Your task to perform on an android device: Add "usb-c to usb-a" to the cart on bestbuy.com, then select checkout. Image 0: 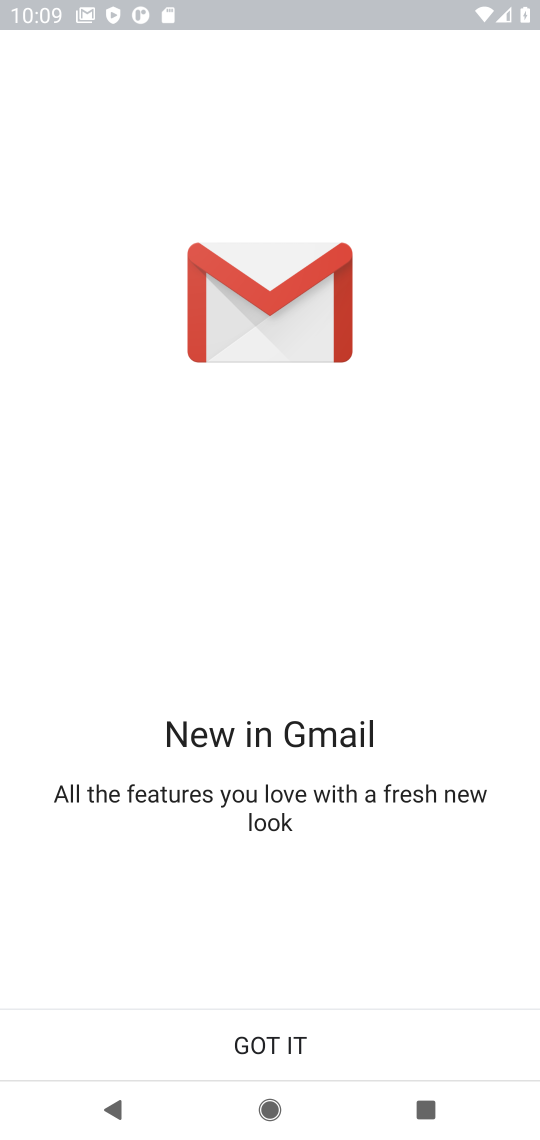
Step 0: press home button
Your task to perform on an android device: Add "usb-c to usb-a" to the cart on bestbuy.com, then select checkout. Image 1: 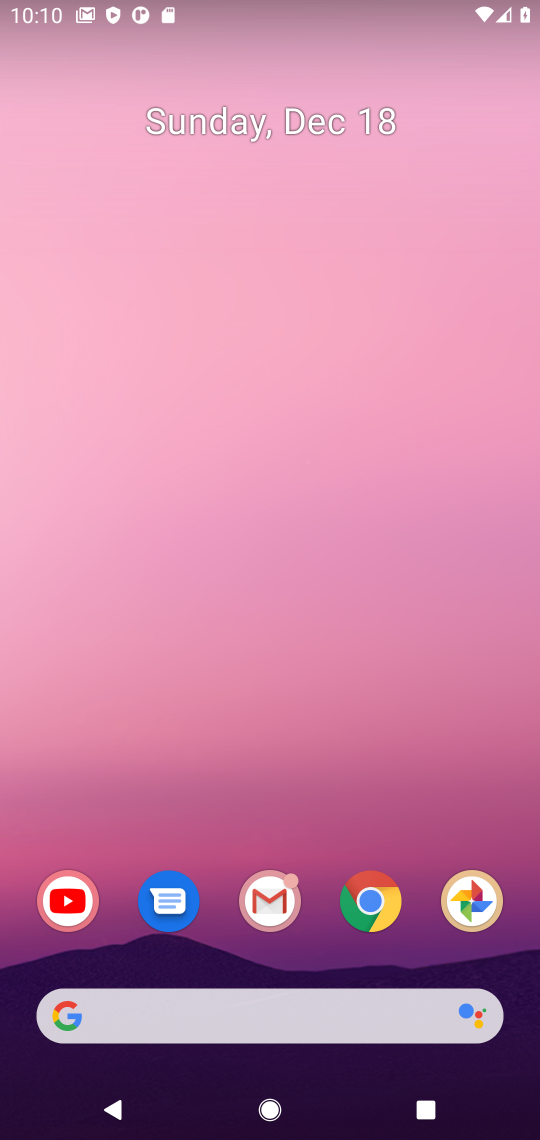
Step 1: click (359, 910)
Your task to perform on an android device: Add "usb-c to usb-a" to the cart on bestbuy.com, then select checkout. Image 2: 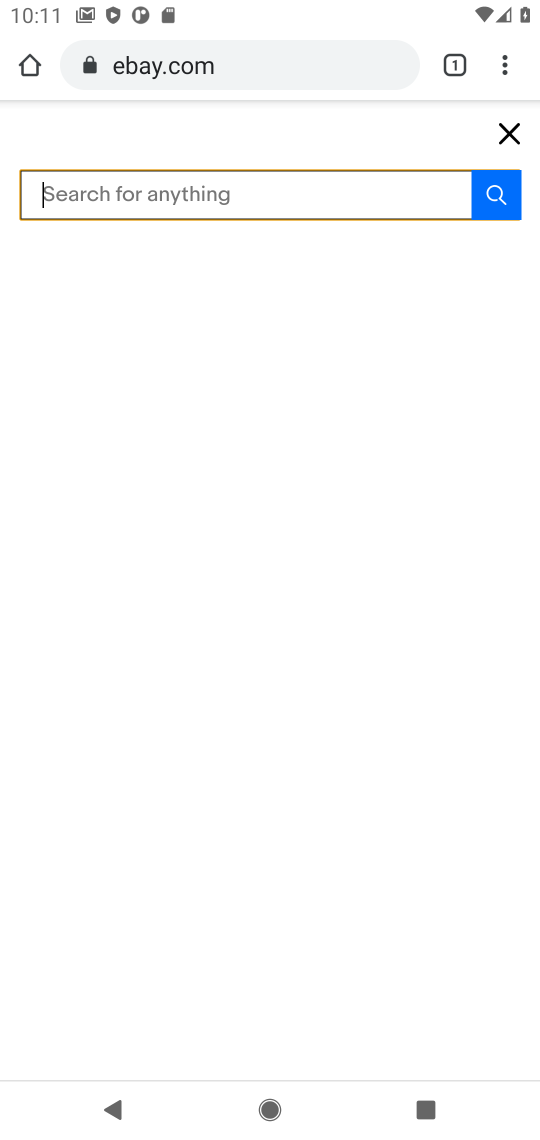
Step 2: task complete